Your task to perform on an android device: change notification settings in the gmail app Image 0: 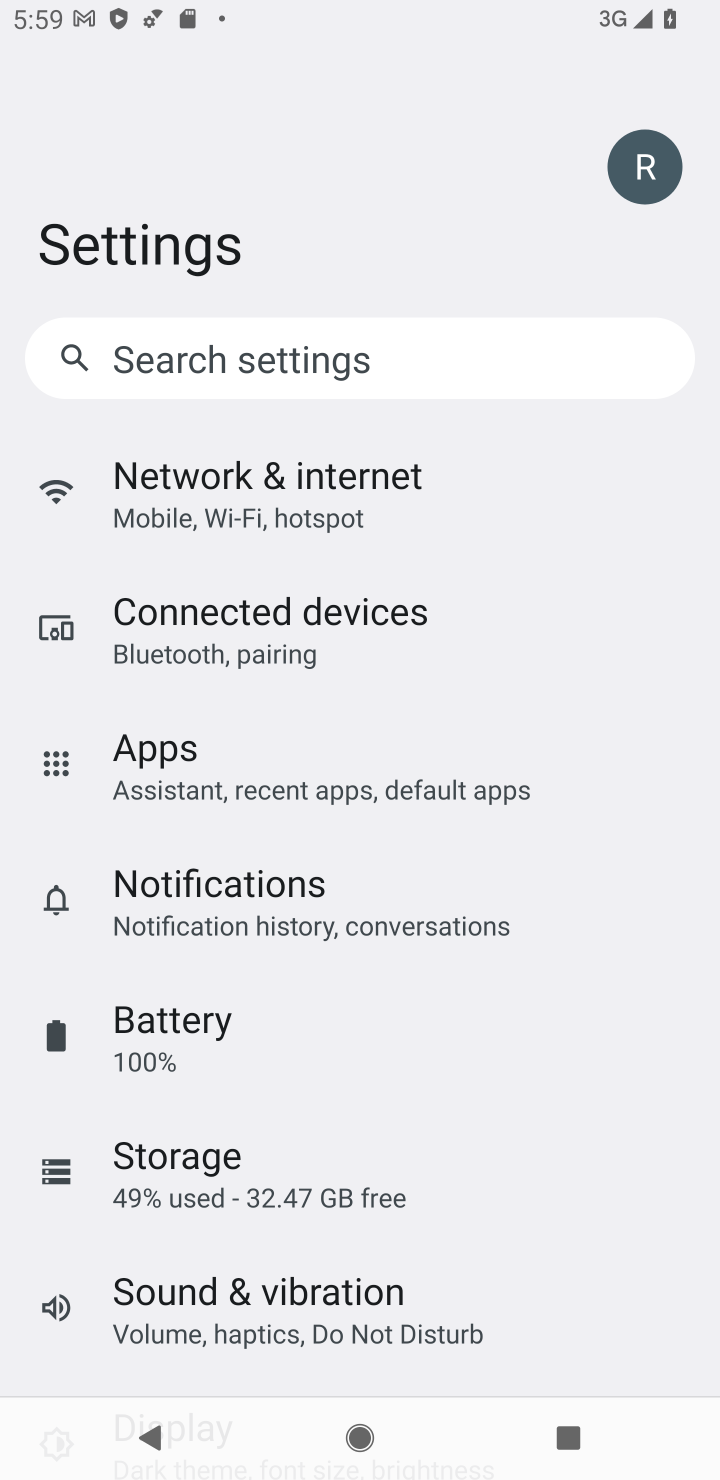
Step 0: click (317, 923)
Your task to perform on an android device: change notification settings in the gmail app Image 1: 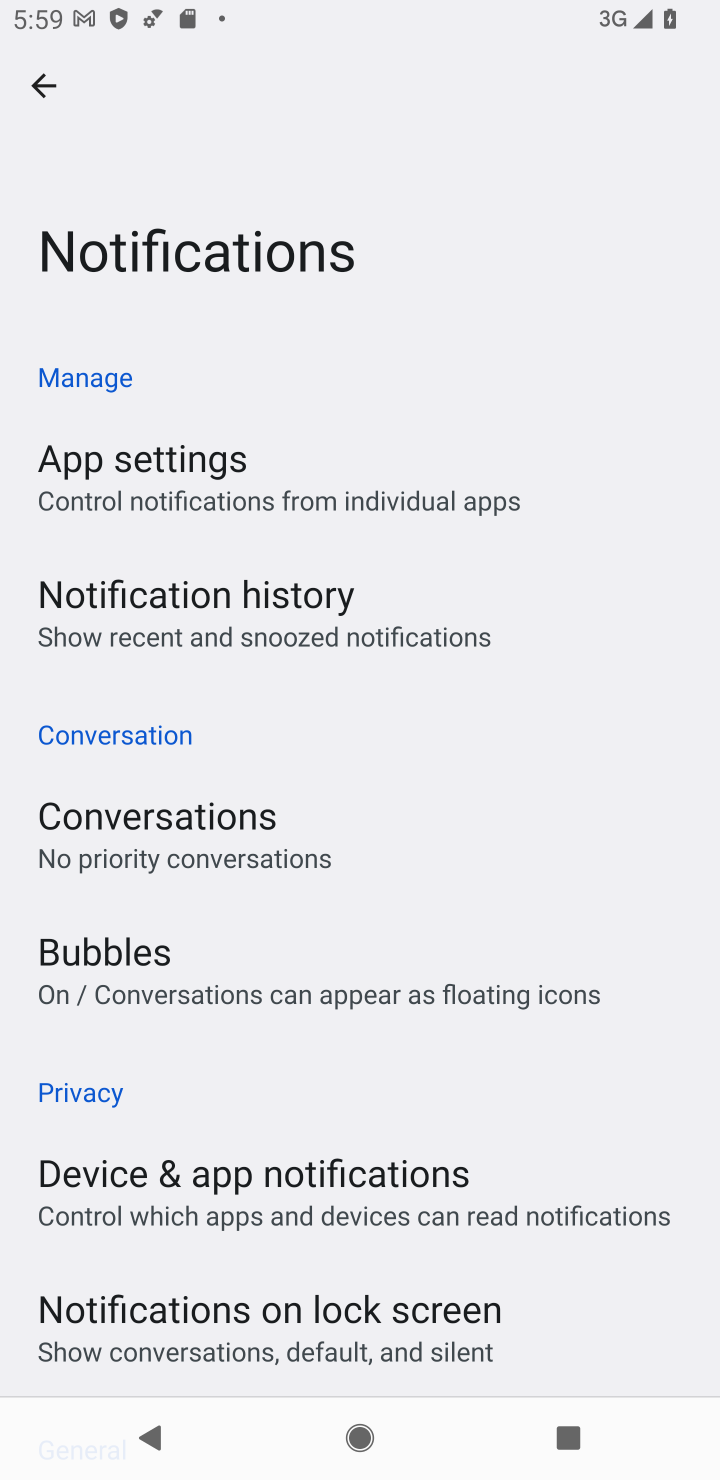
Step 1: click (241, 1186)
Your task to perform on an android device: change notification settings in the gmail app Image 2: 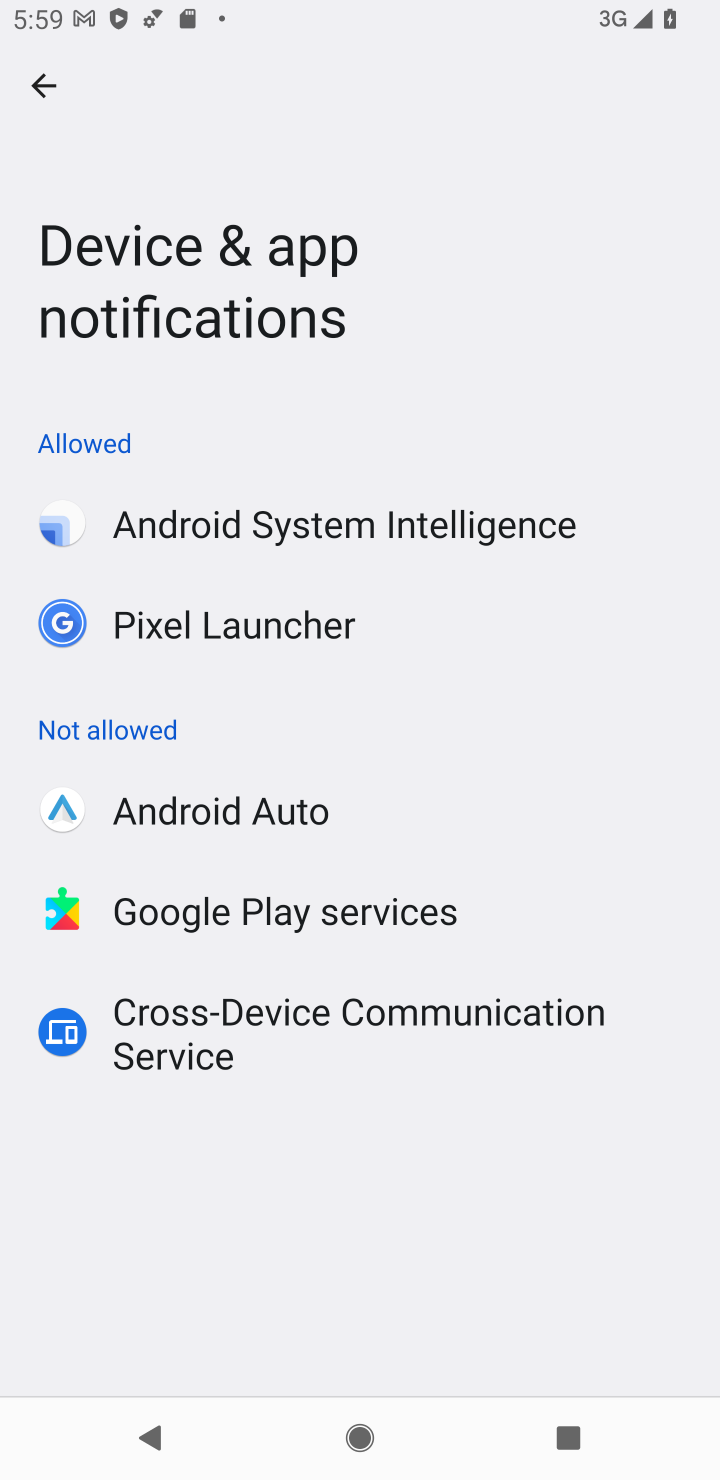
Step 2: click (39, 84)
Your task to perform on an android device: change notification settings in the gmail app Image 3: 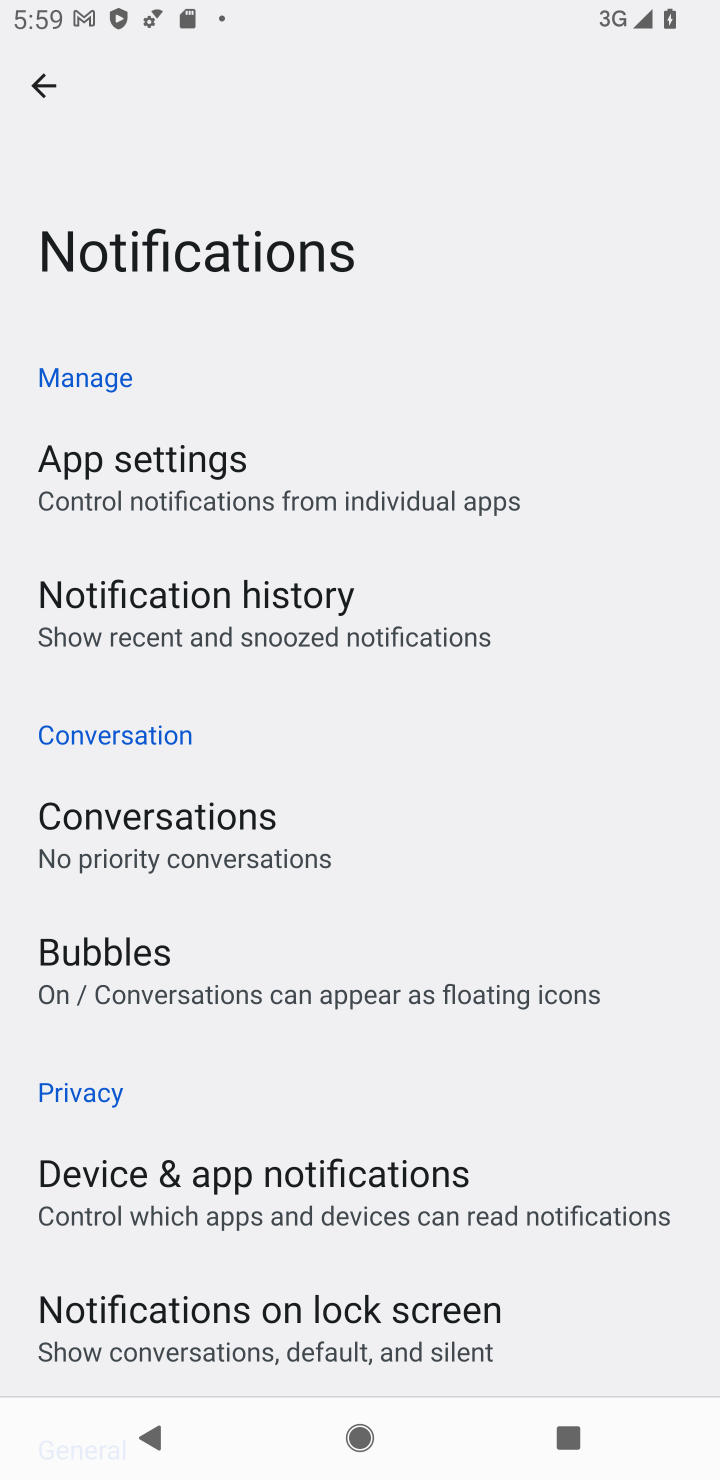
Step 3: drag from (361, 1176) to (359, 687)
Your task to perform on an android device: change notification settings in the gmail app Image 4: 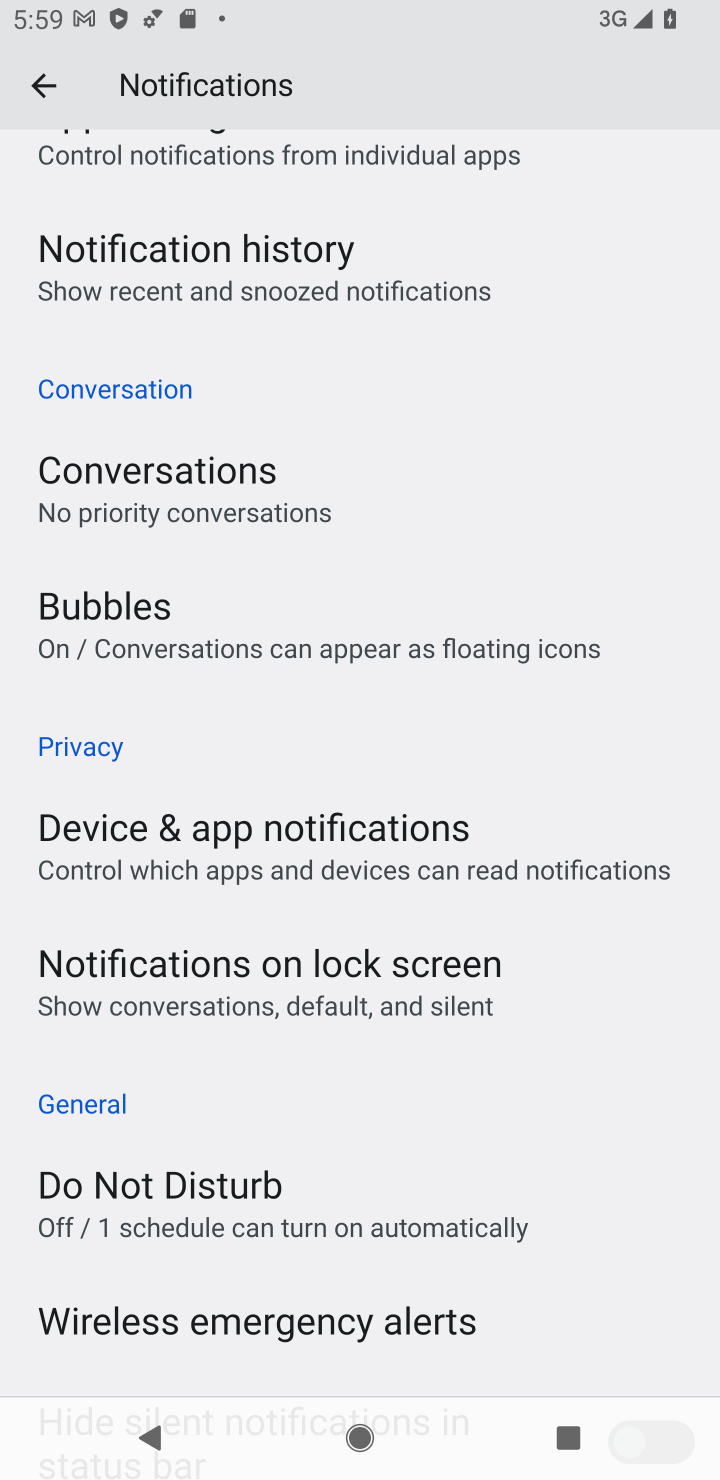
Step 4: drag from (332, 1234) to (505, 158)
Your task to perform on an android device: change notification settings in the gmail app Image 5: 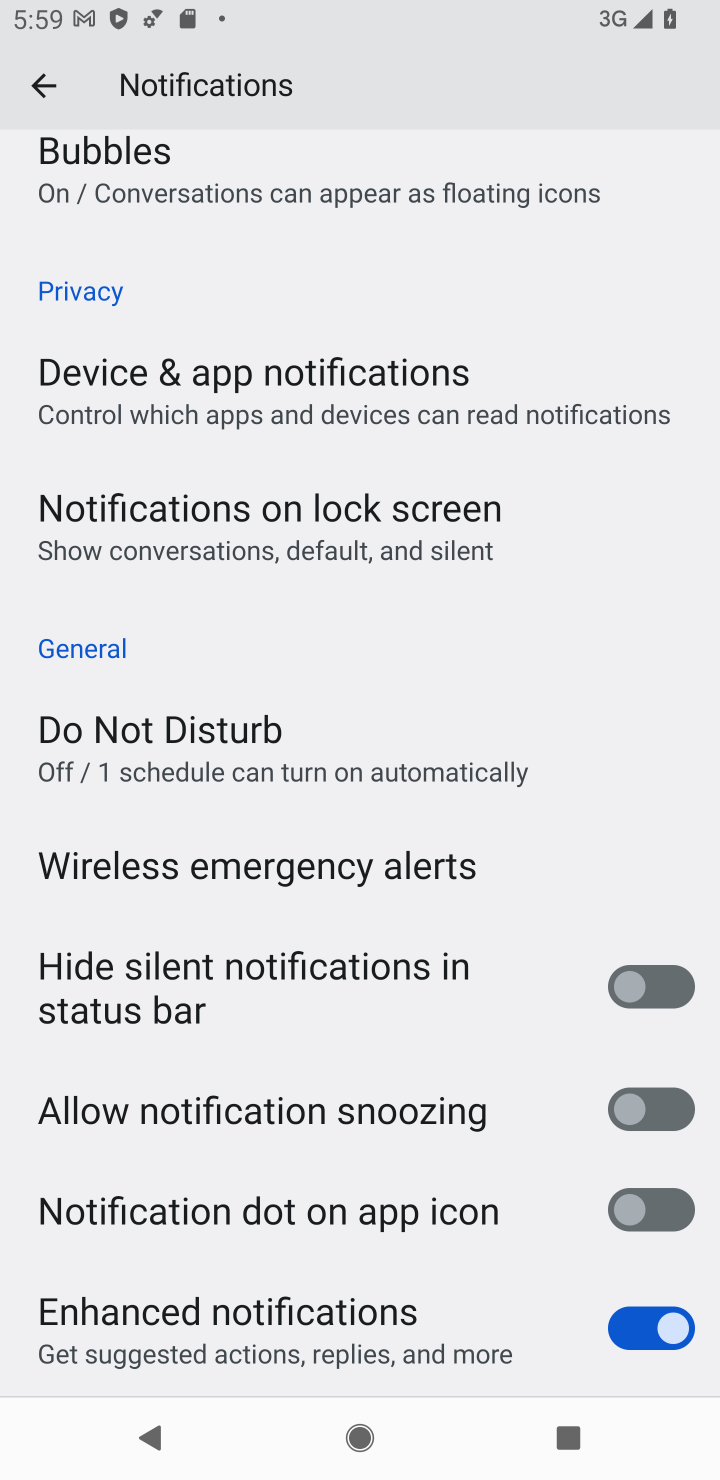
Step 5: drag from (302, 421) to (236, 1207)
Your task to perform on an android device: change notification settings in the gmail app Image 6: 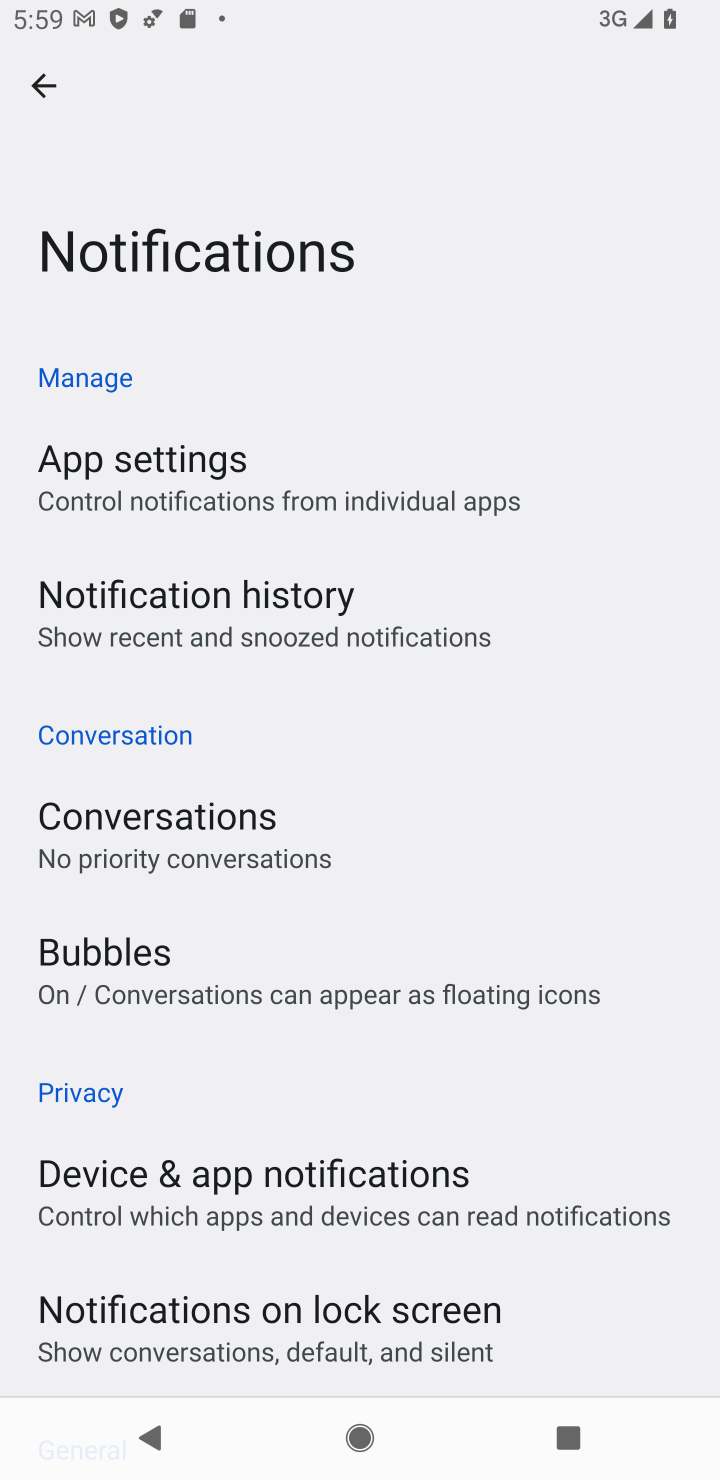
Step 6: click (317, 469)
Your task to perform on an android device: change notification settings in the gmail app Image 7: 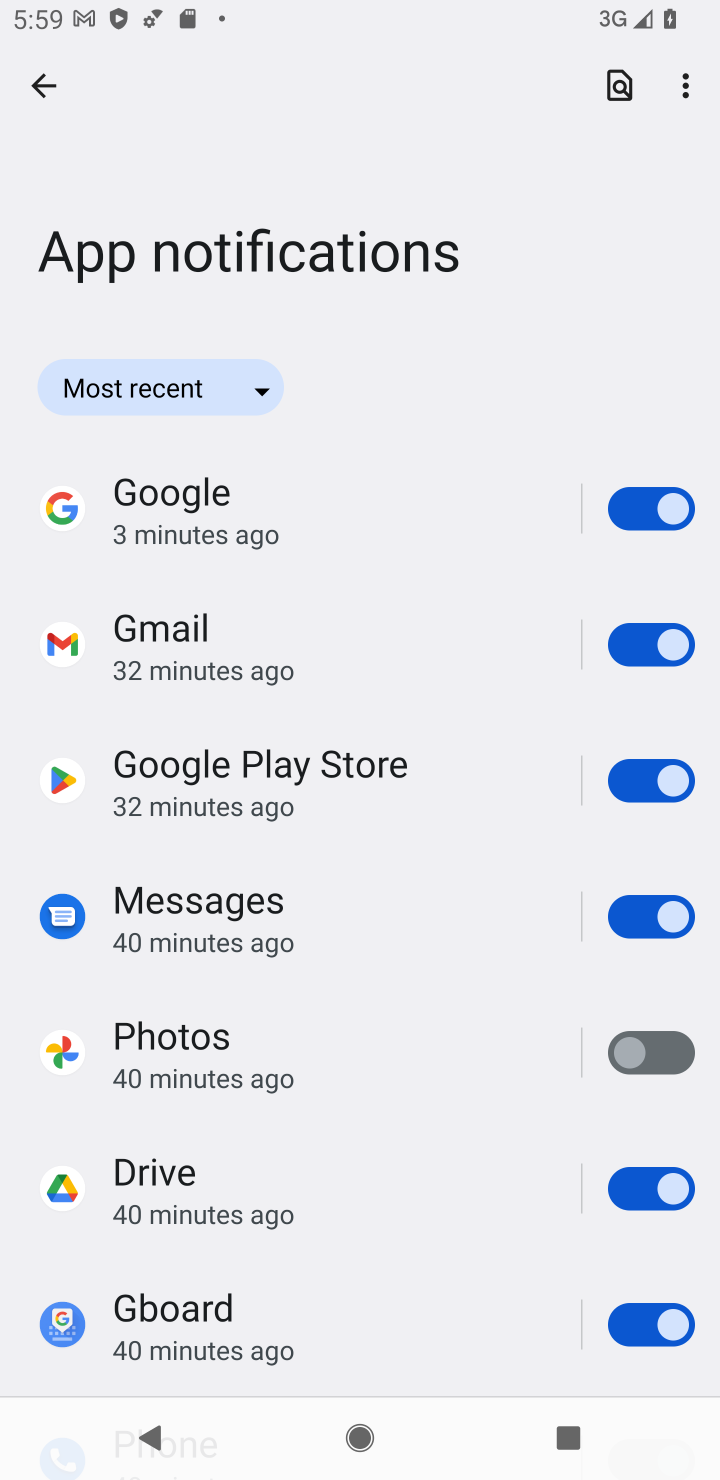
Step 7: click (598, 505)
Your task to perform on an android device: change notification settings in the gmail app Image 8: 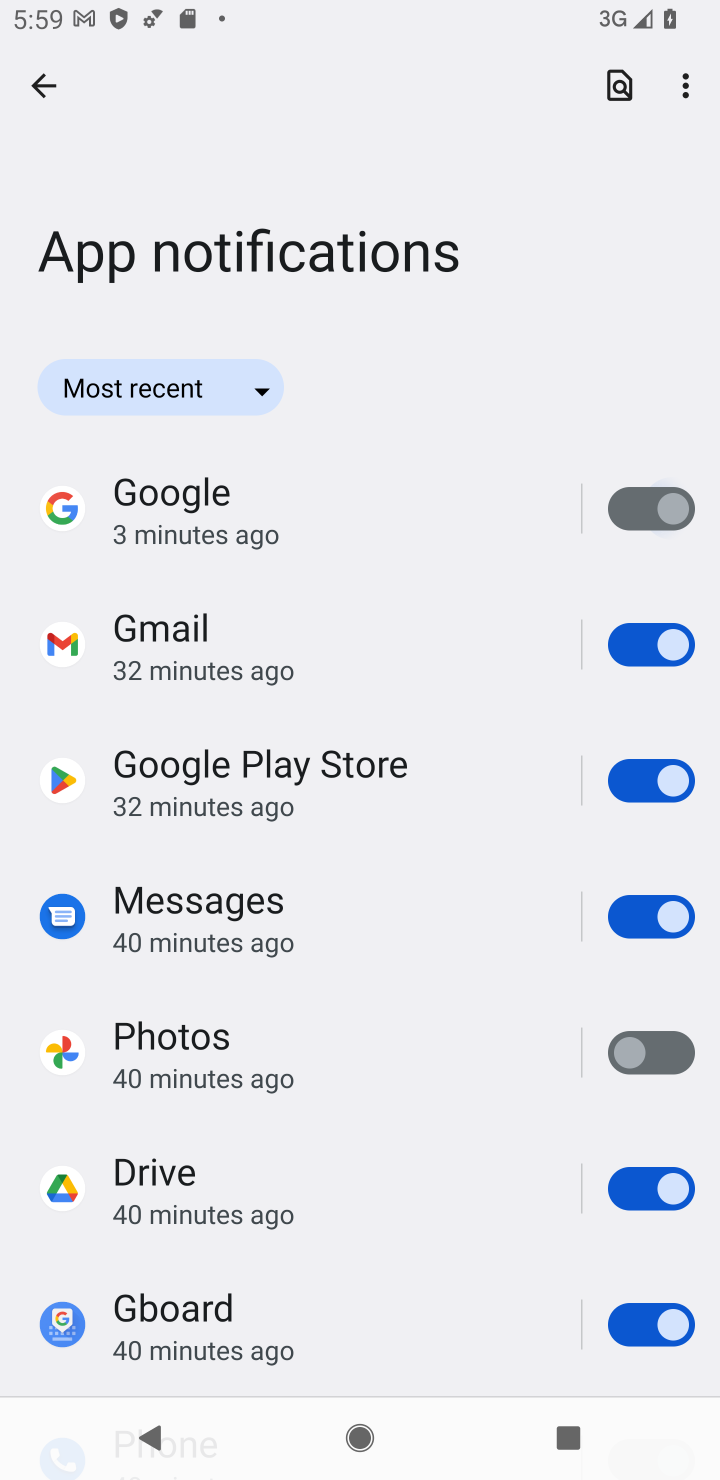
Step 8: click (615, 640)
Your task to perform on an android device: change notification settings in the gmail app Image 9: 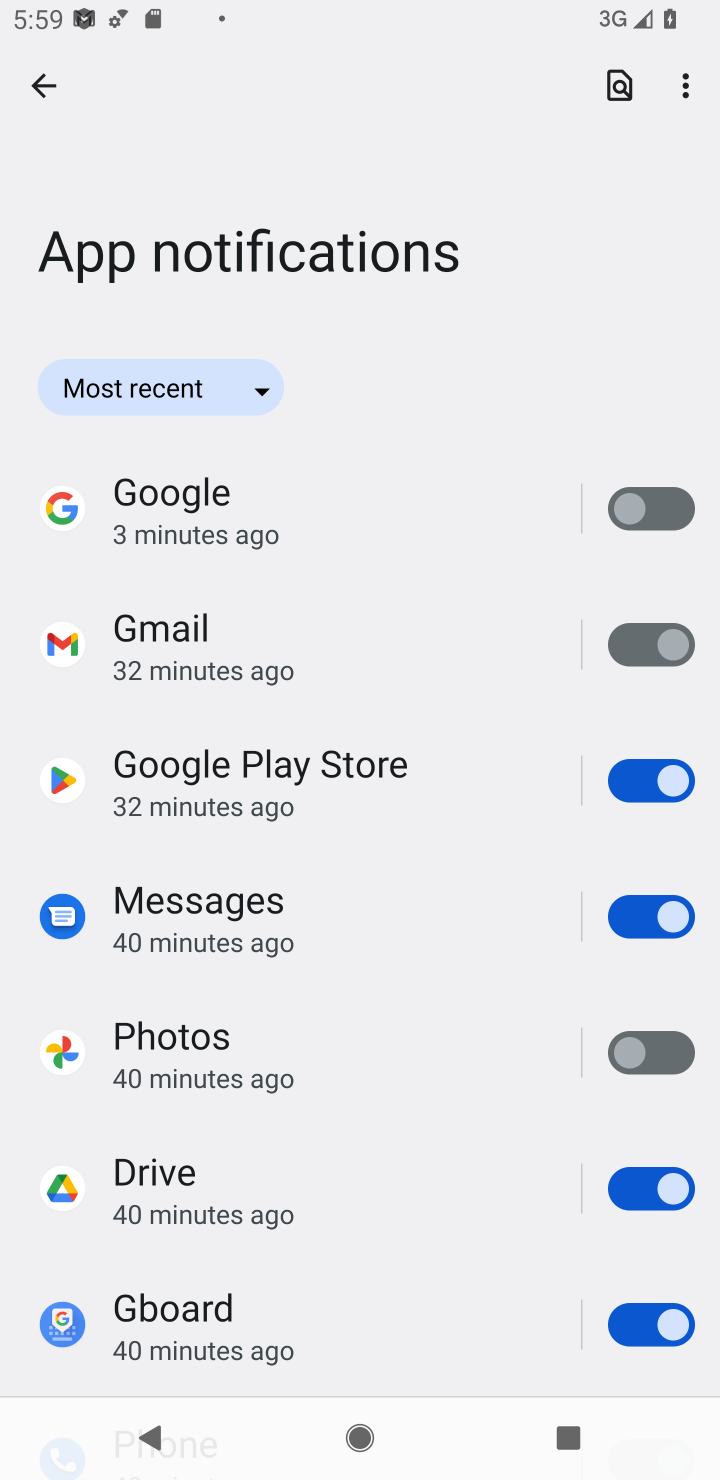
Step 9: click (614, 768)
Your task to perform on an android device: change notification settings in the gmail app Image 10: 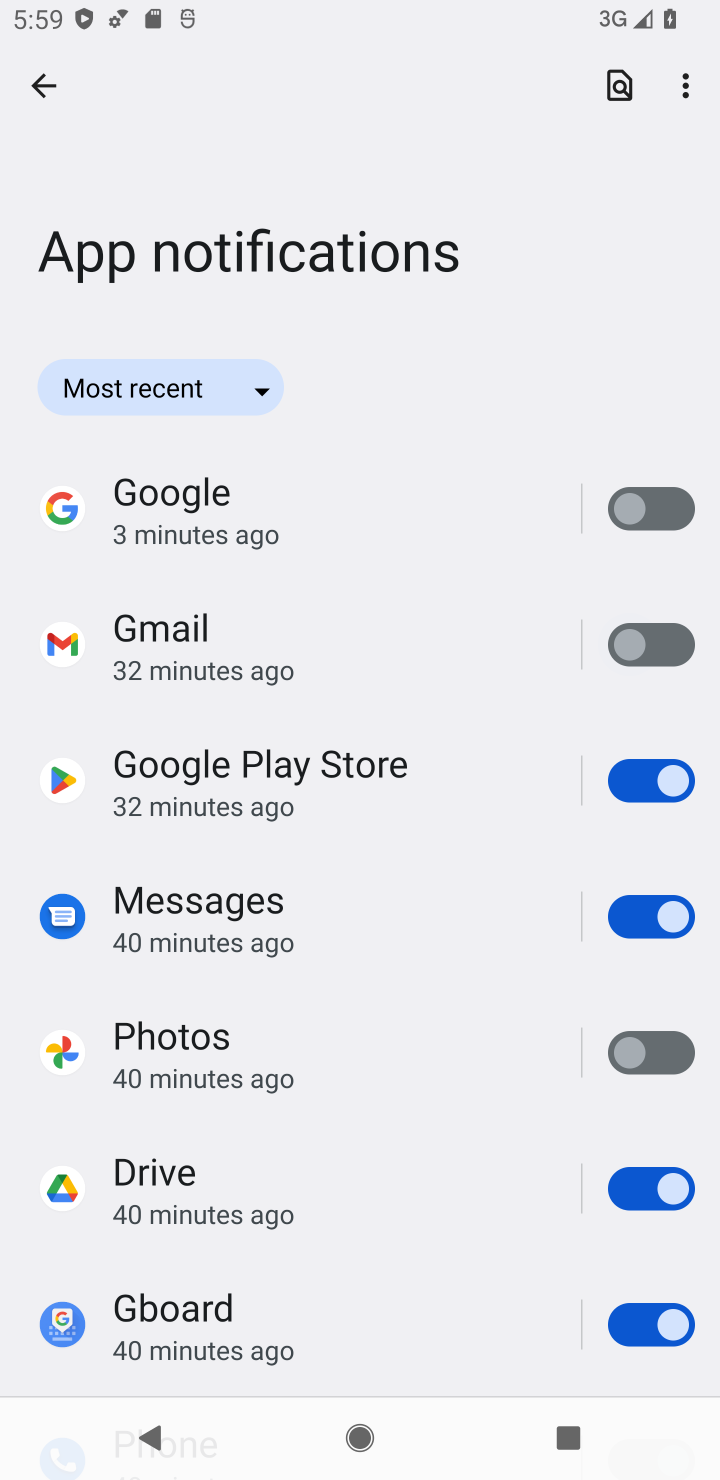
Step 10: click (616, 905)
Your task to perform on an android device: change notification settings in the gmail app Image 11: 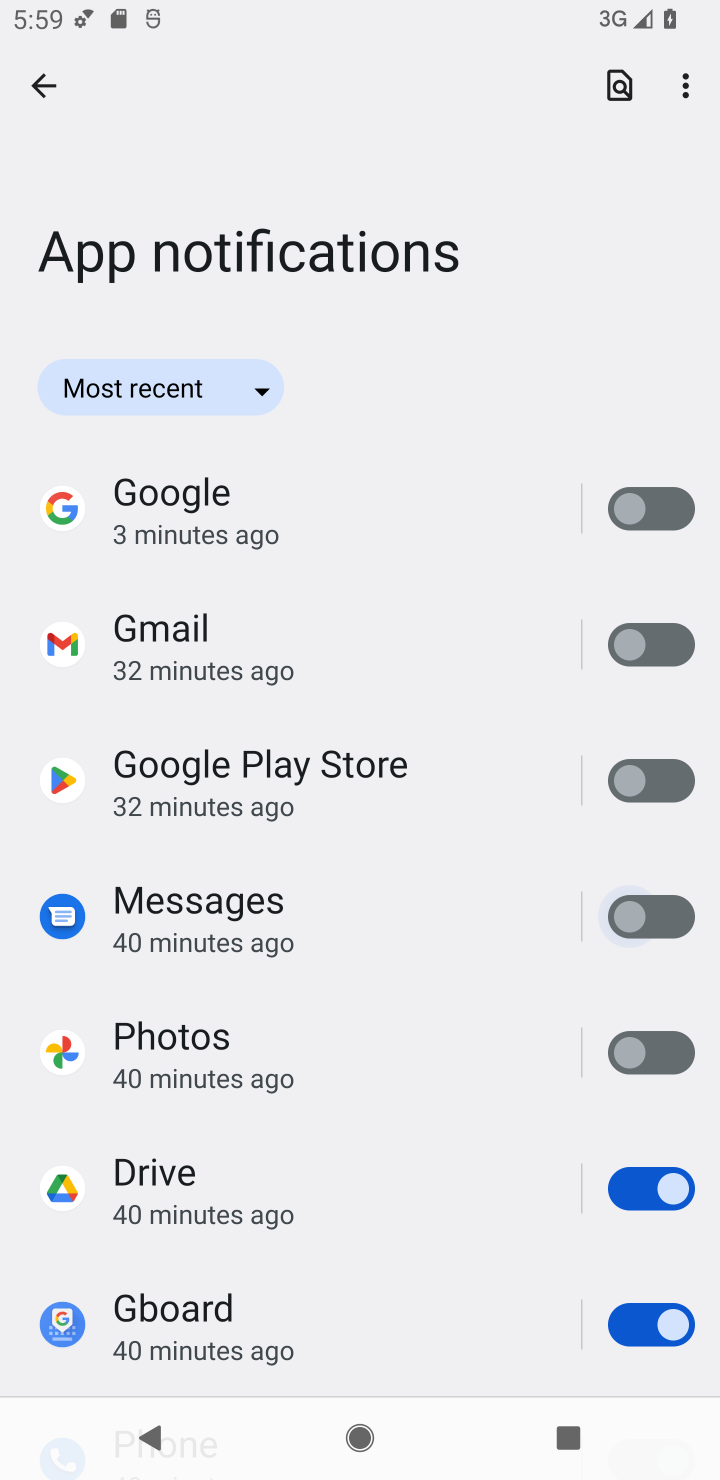
Step 11: click (615, 1181)
Your task to perform on an android device: change notification settings in the gmail app Image 12: 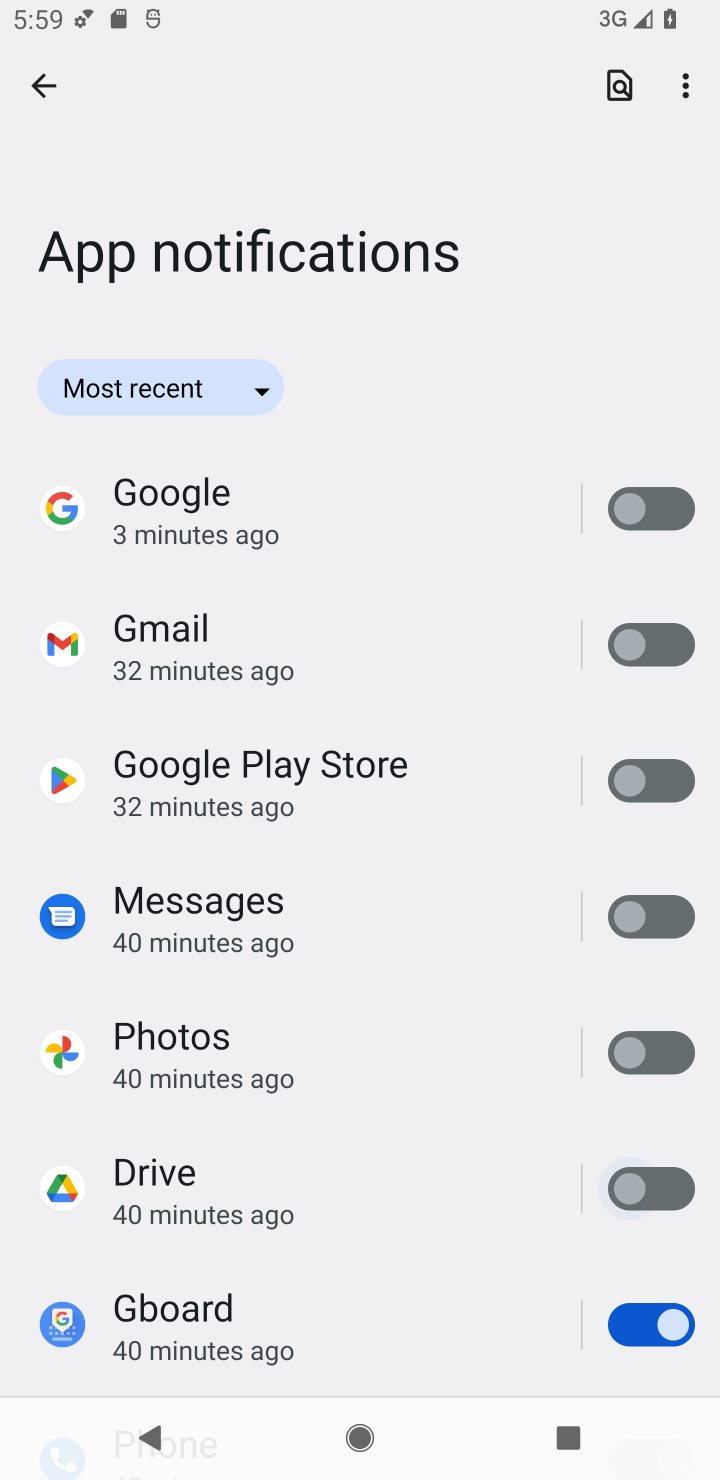
Step 12: drag from (514, 1015) to (563, 431)
Your task to perform on an android device: change notification settings in the gmail app Image 13: 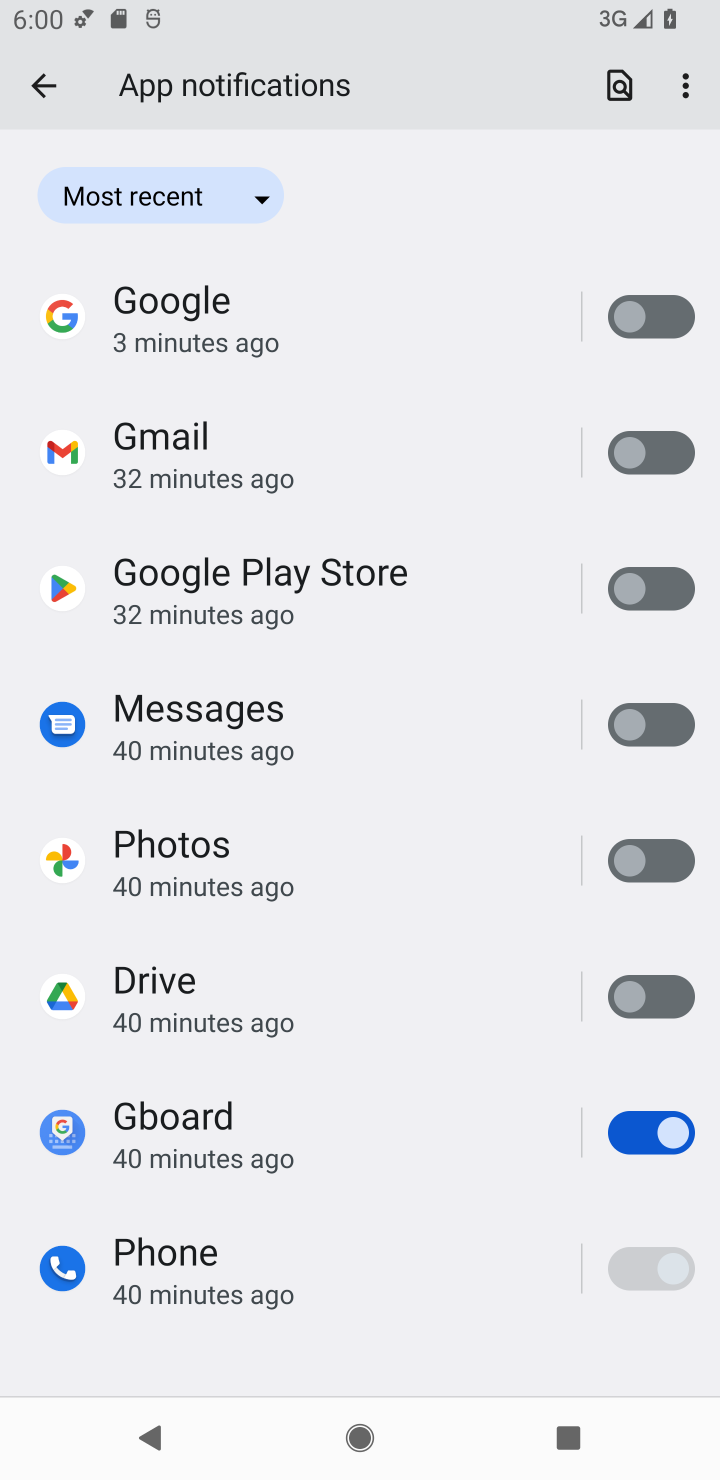
Step 13: click (629, 1143)
Your task to perform on an android device: change notification settings in the gmail app Image 14: 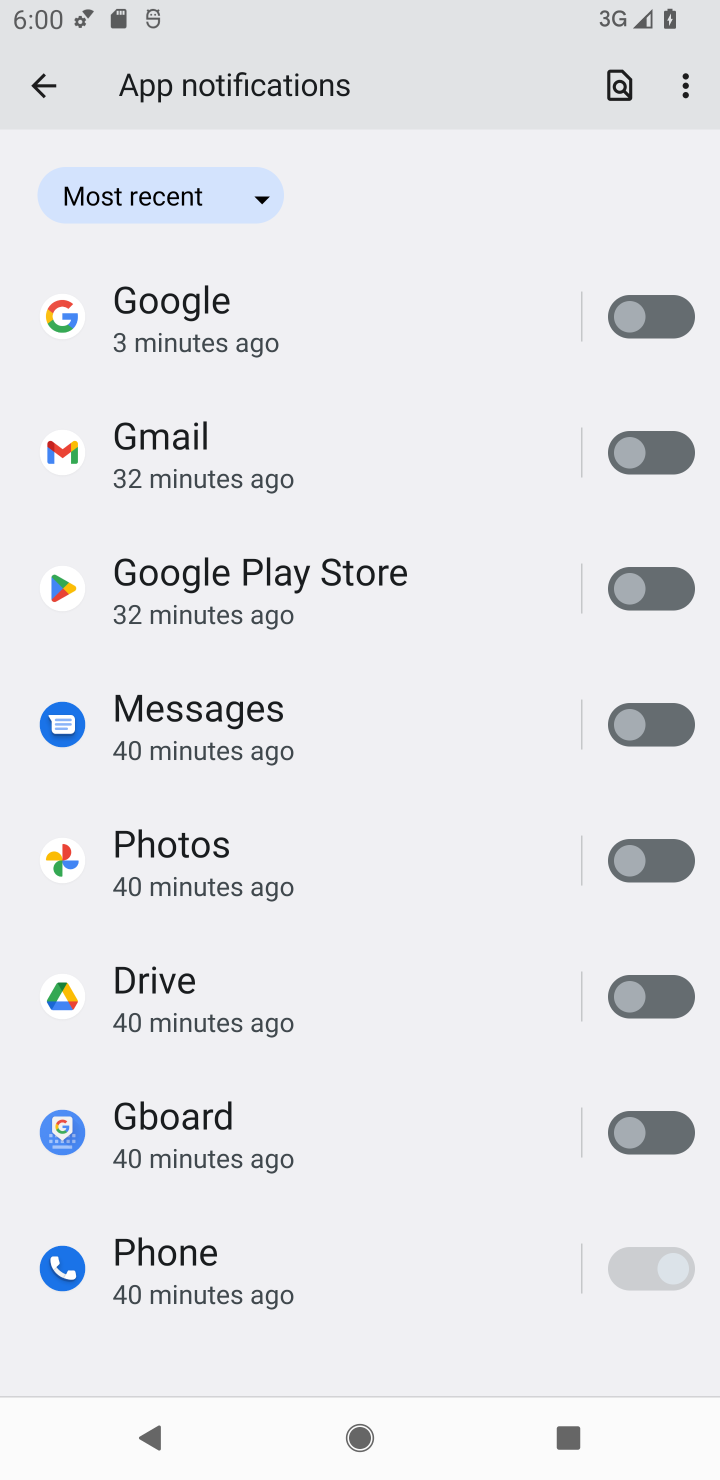
Step 14: task complete